Your task to perform on an android device: Open the map Image 0: 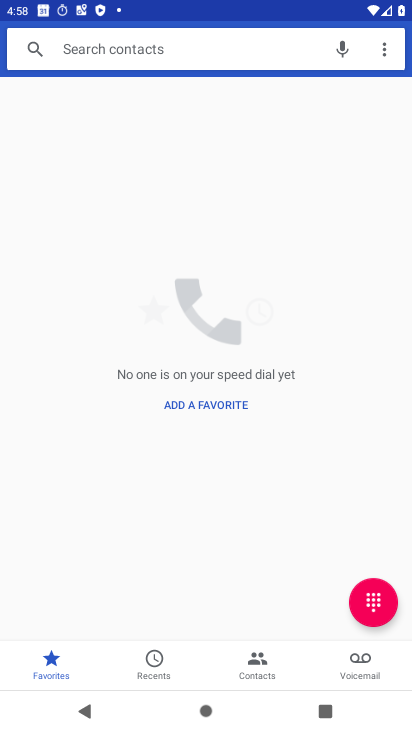
Step 0: press home button
Your task to perform on an android device: Open the map Image 1: 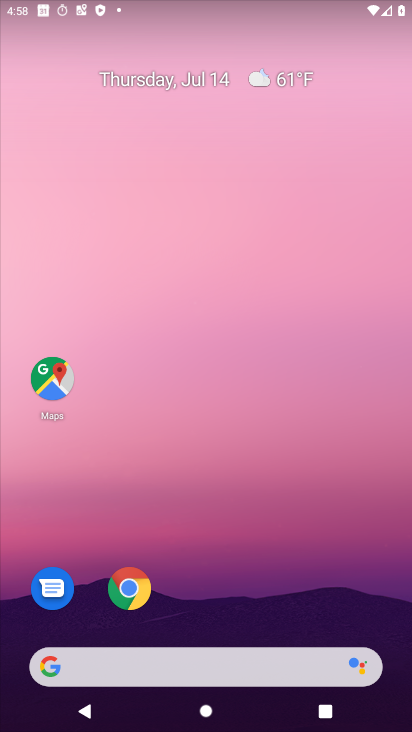
Step 1: click (52, 378)
Your task to perform on an android device: Open the map Image 2: 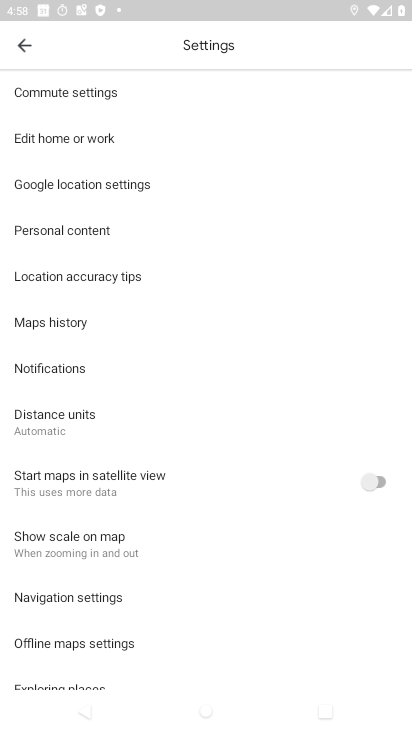
Step 2: task complete